Your task to perform on an android device: find snoozed emails in the gmail app Image 0: 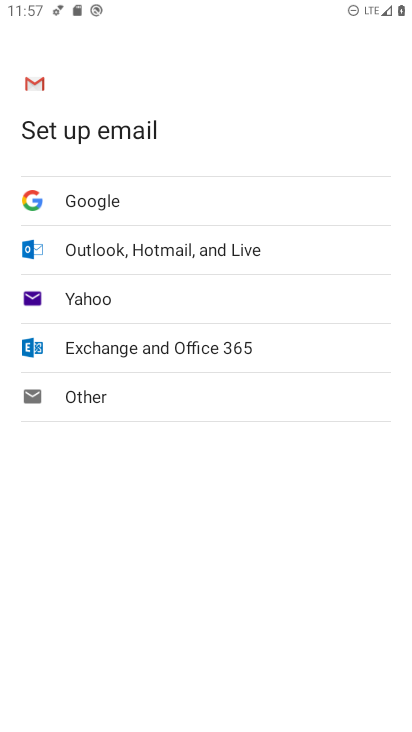
Step 0: press home button
Your task to perform on an android device: find snoozed emails in the gmail app Image 1: 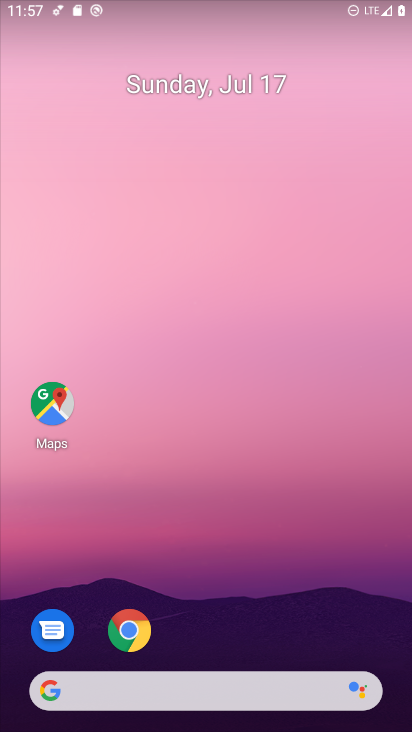
Step 1: drag from (172, 251) to (171, 60)
Your task to perform on an android device: find snoozed emails in the gmail app Image 2: 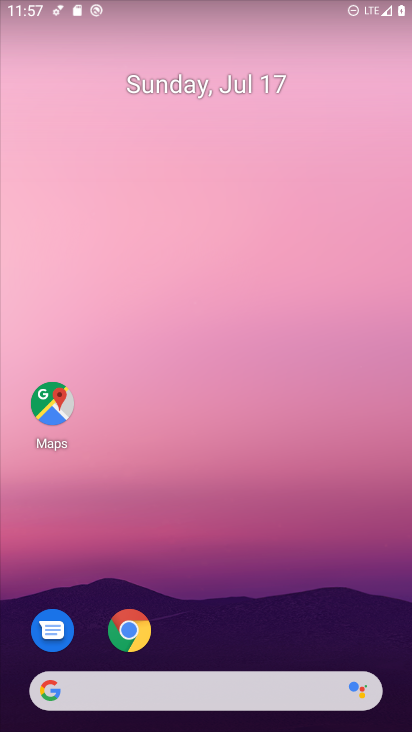
Step 2: drag from (193, 590) to (160, 34)
Your task to perform on an android device: find snoozed emails in the gmail app Image 3: 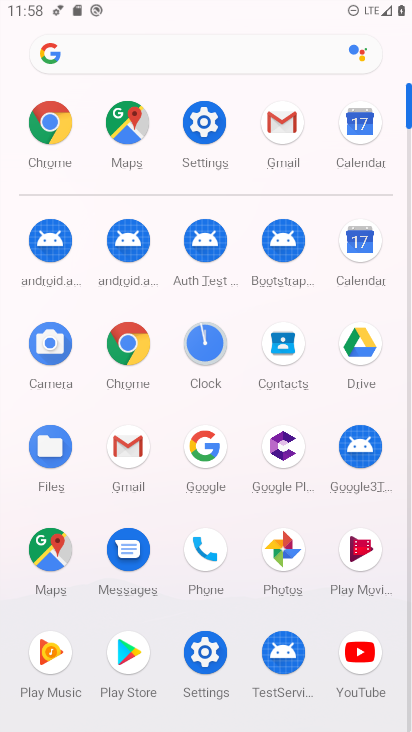
Step 3: click (286, 148)
Your task to perform on an android device: find snoozed emails in the gmail app Image 4: 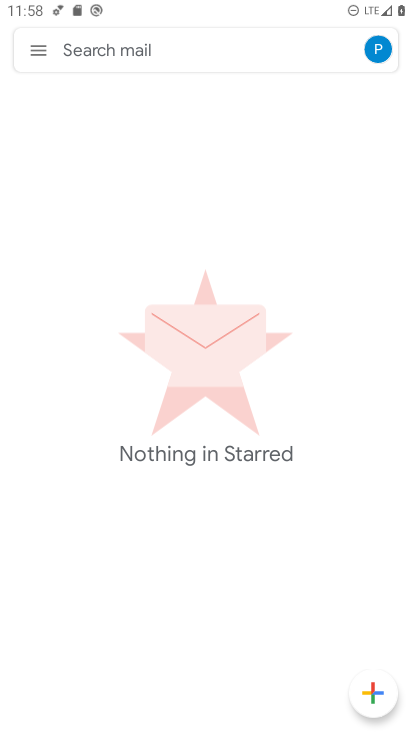
Step 4: click (24, 44)
Your task to perform on an android device: find snoozed emails in the gmail app Image 5: 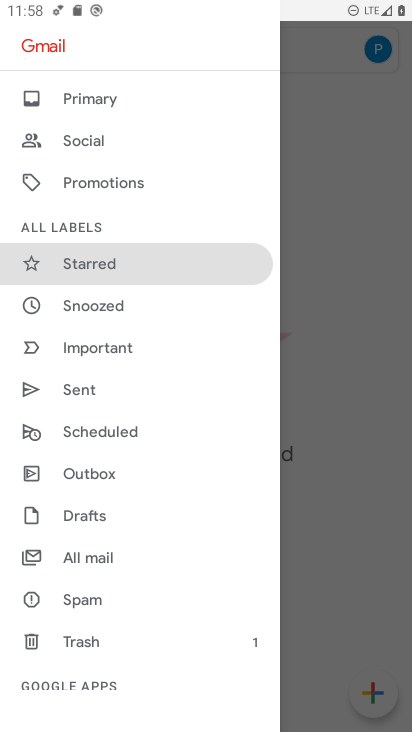
Step 5: click (98, 301)
Your task to perform on an android device: find snoozed emails in the gmail app Image 6: 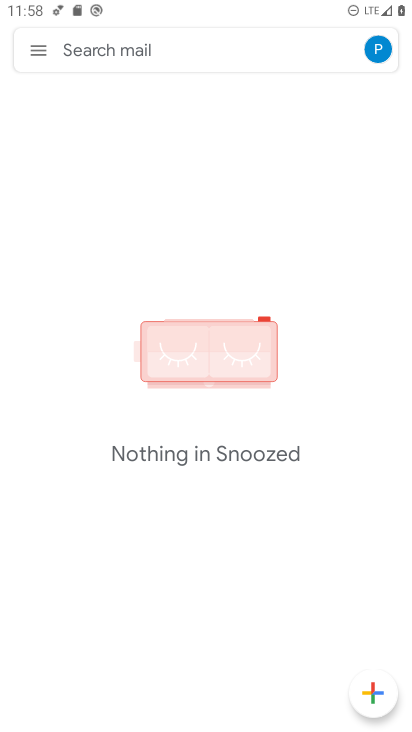
Step 6: task complete